Your task to perform on an android device: Go to eBay Image 0: 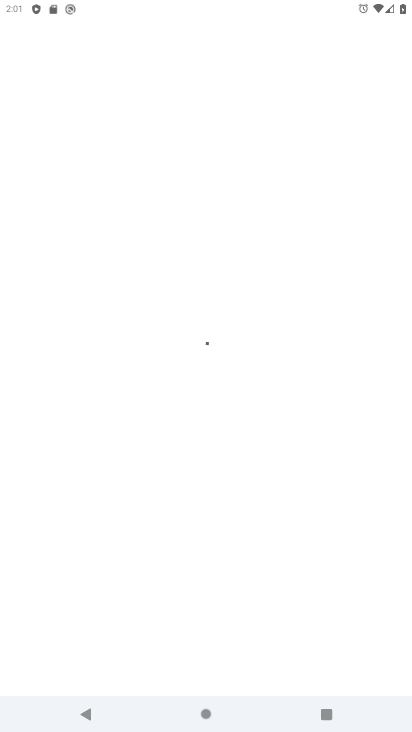
Step 0: press home button
Your task to perform on an android device: Go to eBay Image 1: 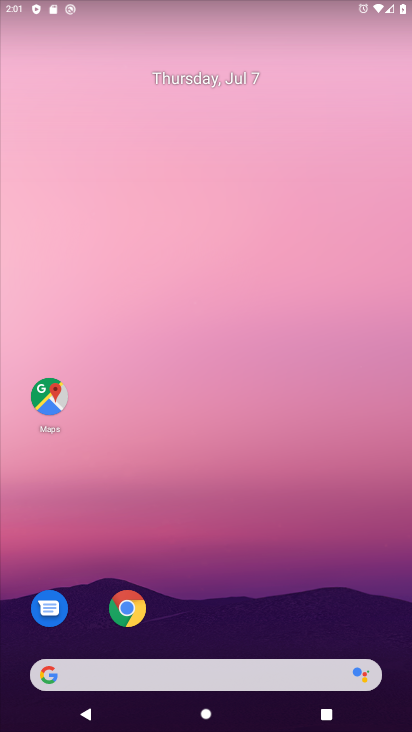
Step 1: drag from (244, 696) to (246, 169)
Your task to perform on an android device: Go to eBay Image 2: 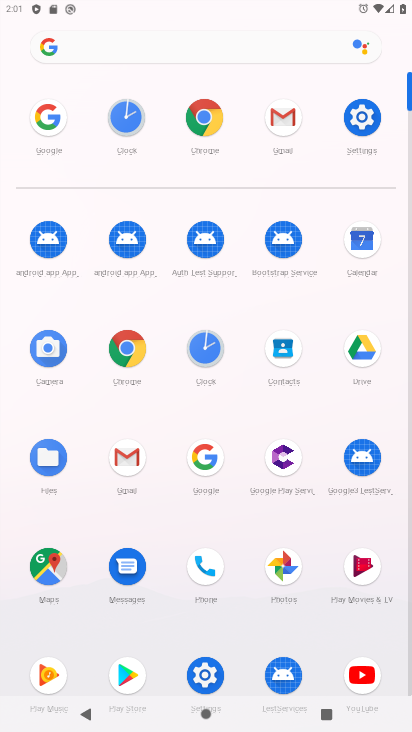
Step 2: click (204, 117)
Your task to perform on an android device: Go to eBay Image 3: 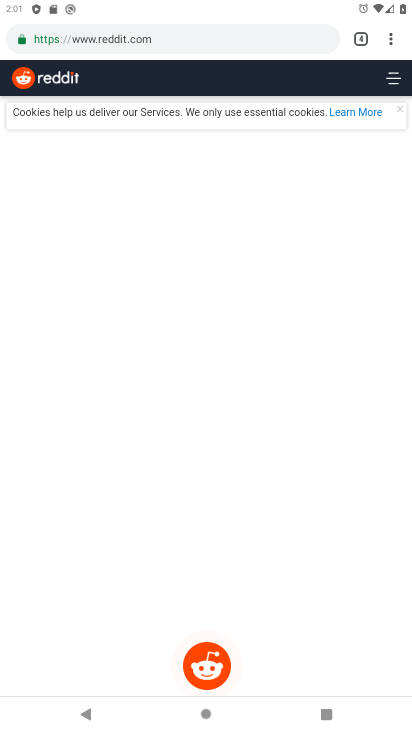
Step 3: click (390, 44)
Your task to perform on an android device: Go to eBay Image 4: 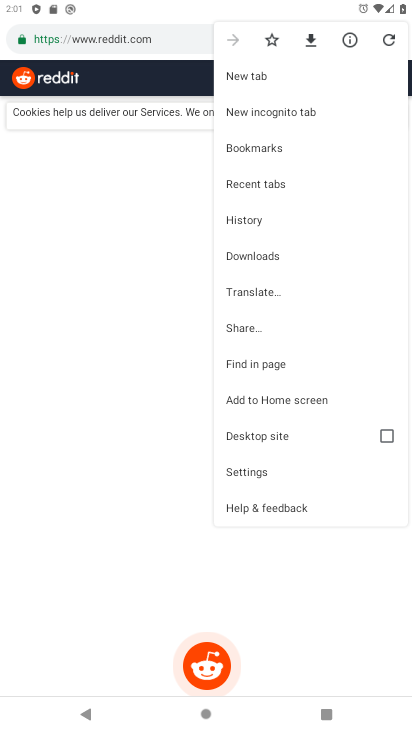
Step 4: click (231, 74)
Your task to perform on an android device: Go to eBay Image 5: 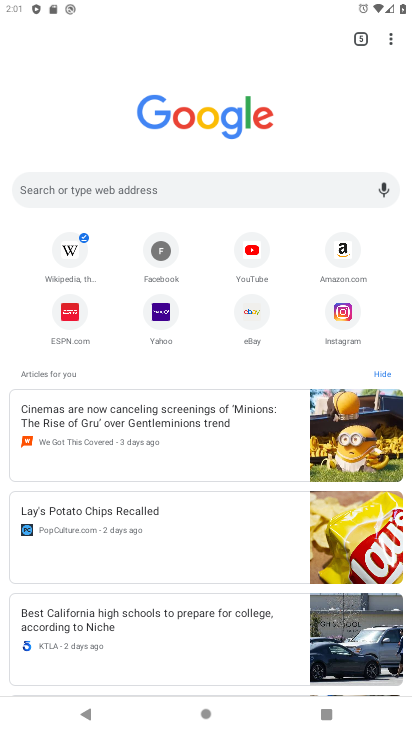
Step 5: click (254, 308)
Your task to perform on an android device: Go to eBay Image 6: 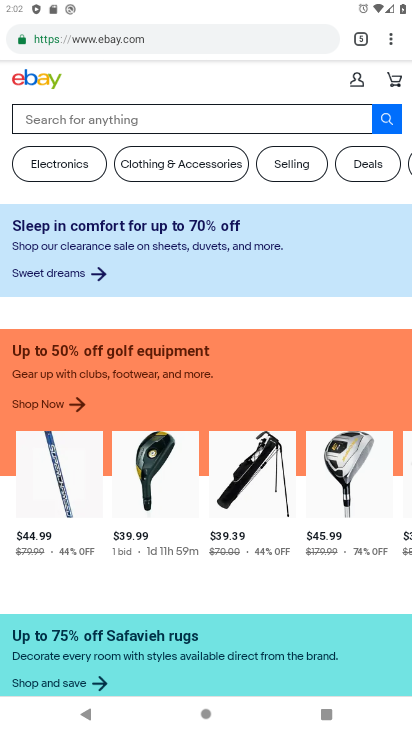
Step 6: task complete